Your task to perform on an android device: Go to eBay Image 0: 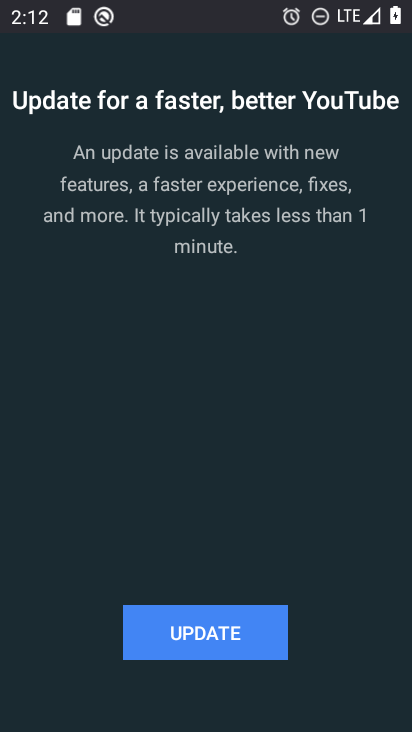
Step 0: press home button
Your task to perform on an android device: Go to eBay Image 1: 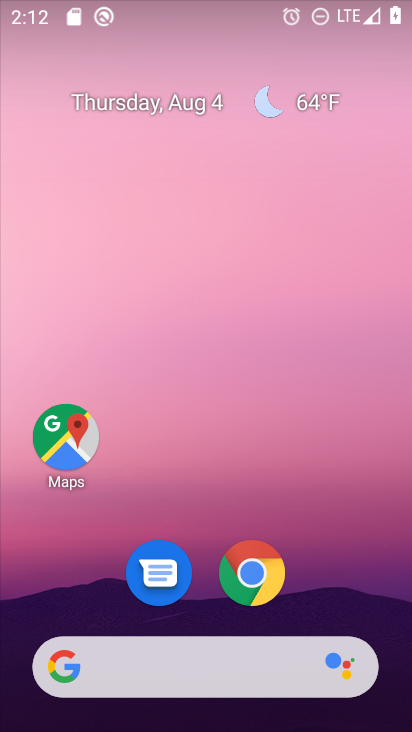
Step 1: drag from (321, 512) to (322, 157)
Your task to perform on an android device: Go to eBay Image 2: 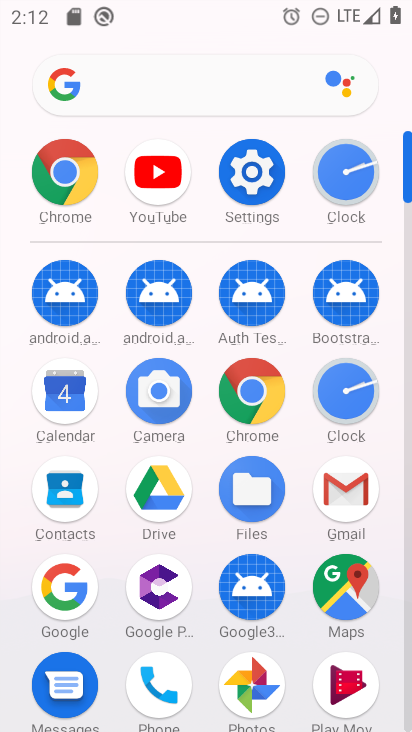
Step 2: click (256, 384)
Your task to perform on an android device: Go to eBay Image 3: 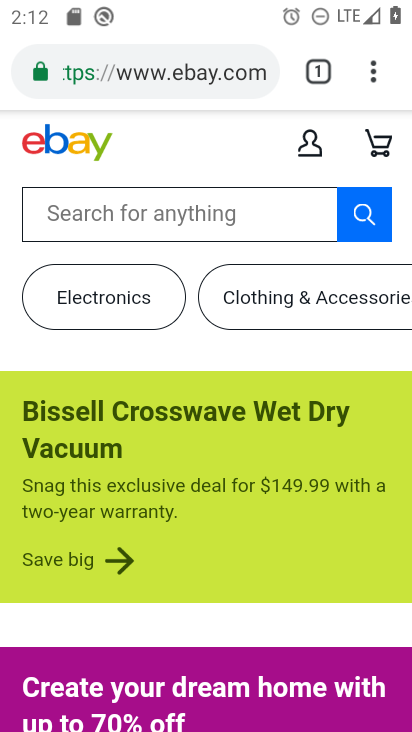
Step 3: click (226, 62)
Your task to perform on an android device: Go to eBay Image 4: 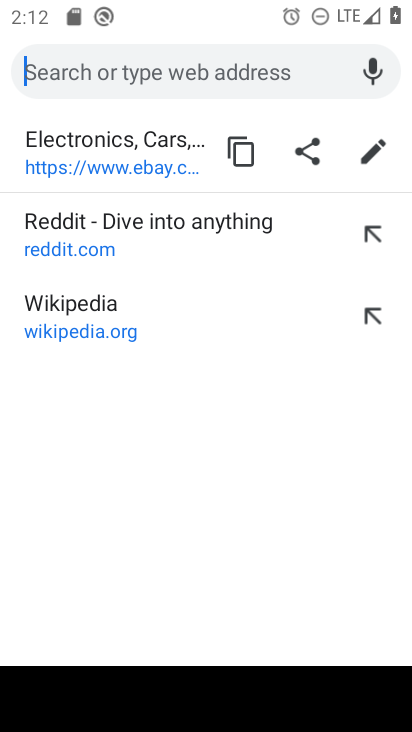
Step 4: type "ebay"
Your task to perform on an android device: Go to eBay Image 5: 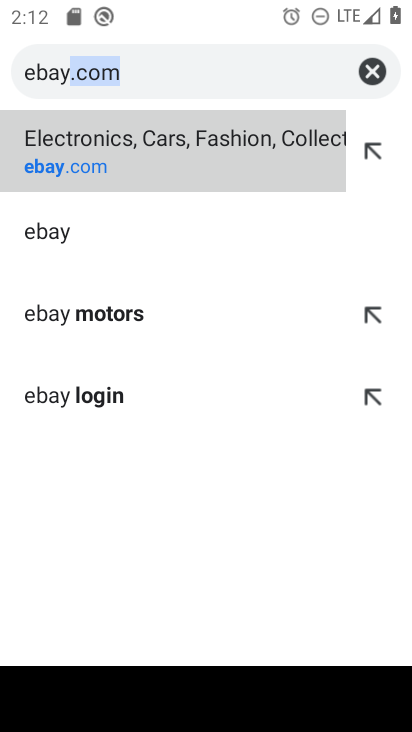
Step 5: click (169, 175)
Your task to perform on an android device: Go to eBay Image 6: 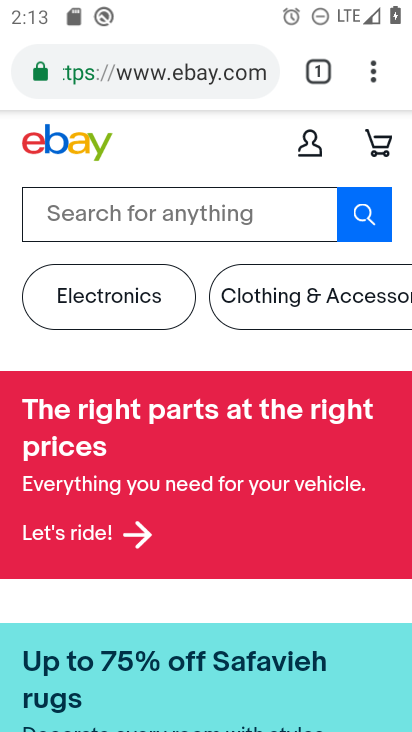
Step 6: task complete